Your task to perform on an android device: Go to privacy settings Image 0: 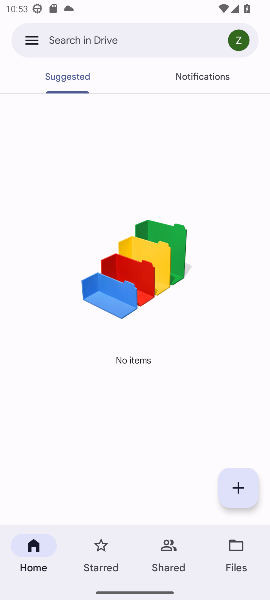
Step 0: press home button
Your task to perform on an android device: Go to privacy settings Image 1: 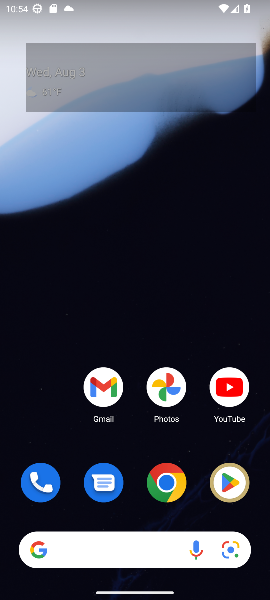
Step 1: task complete